Your task to perform on an android device: turn off location Image 0: 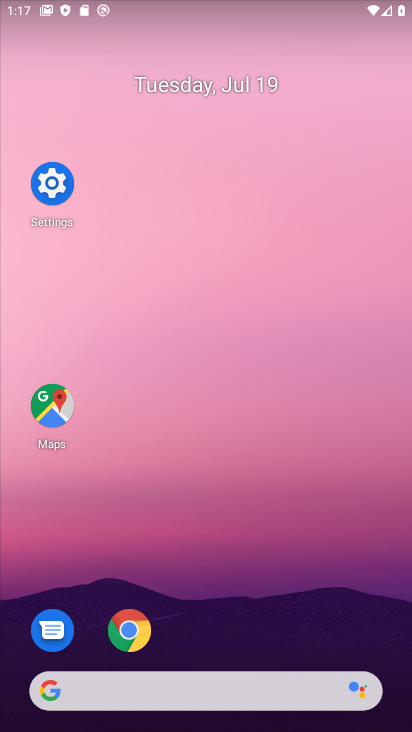
Step 0: click (43, 180)
Your task to perform on an android device: turn off location Image 1: 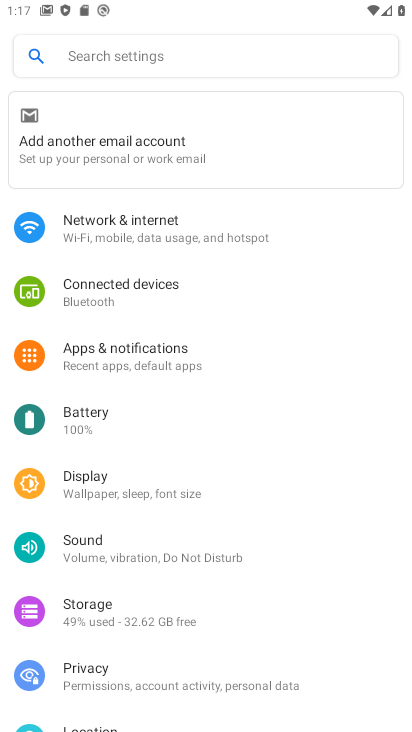
Step 1: drag from (176, 631) to (142, 335)
Your task to perform on an android device: turn off location Image 2: 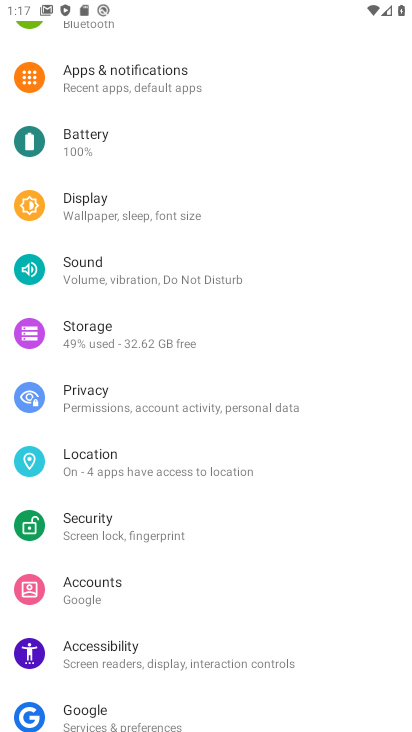
Step 2: click (134, 466)
Your task to perform on an android device: turn off location Image 3: 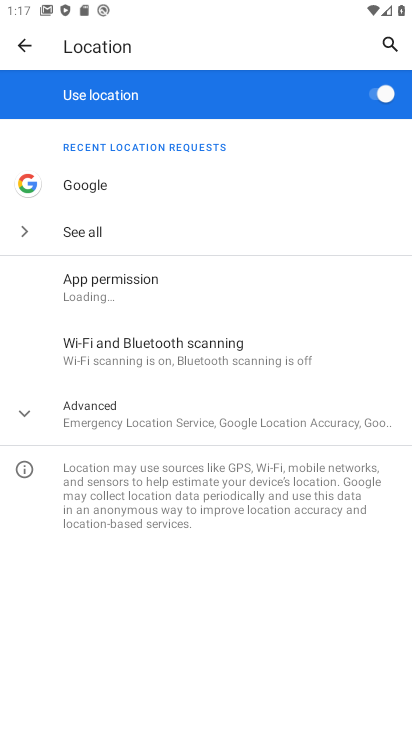
Step 3: click (388, 101)
Your task to perform on an android device: turn off location Image 4: 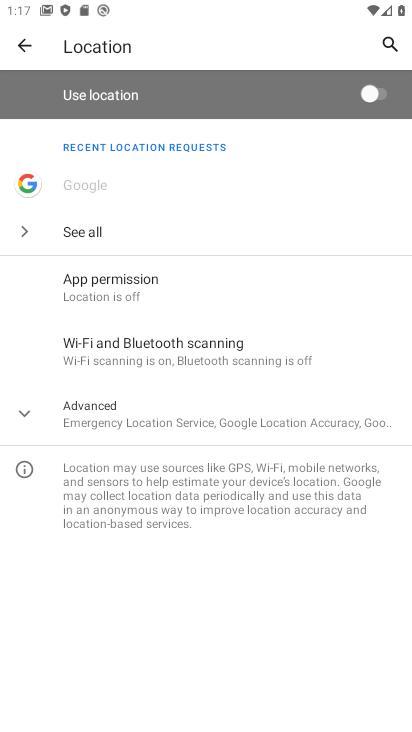
Step 4: task complete